Your task to perform on an android device: See recent photos Image 0: 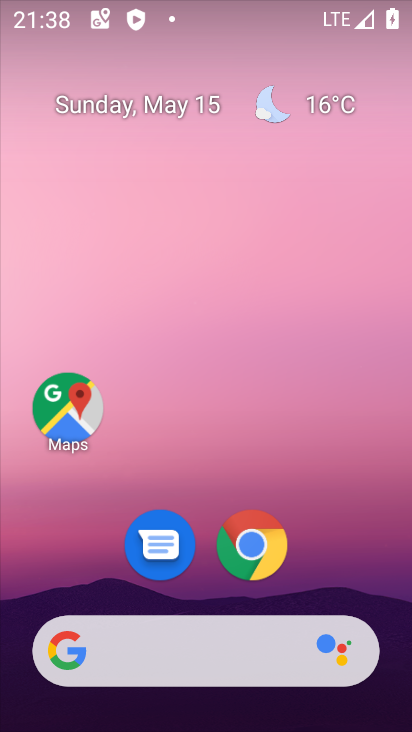
Step 0: drag from (361, 554) to (274, 92)
Your task to perform on an android device: See recent photos Image 1: 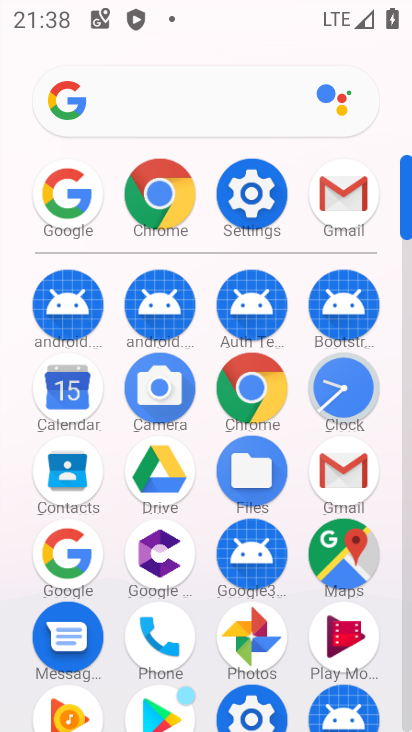
Step 1: click (61, 190)
Your task to perform on an android device: See recent photos Image 2: 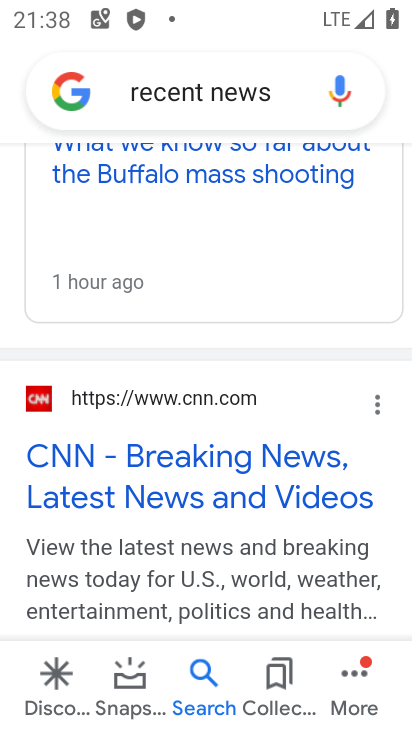
Step 2: task complete